Your task to perform on an android device: move an email to a new category in the gmail app Image 0: 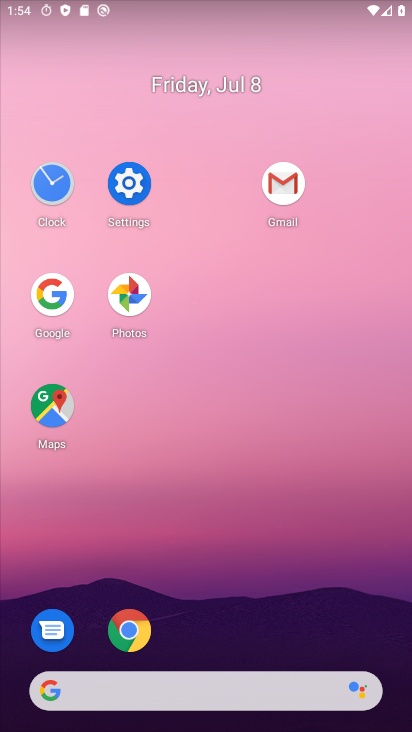
Step 0: click (293, 175)
Your task to perform on an android device: move an email to a new category in the gmail app Image 1: 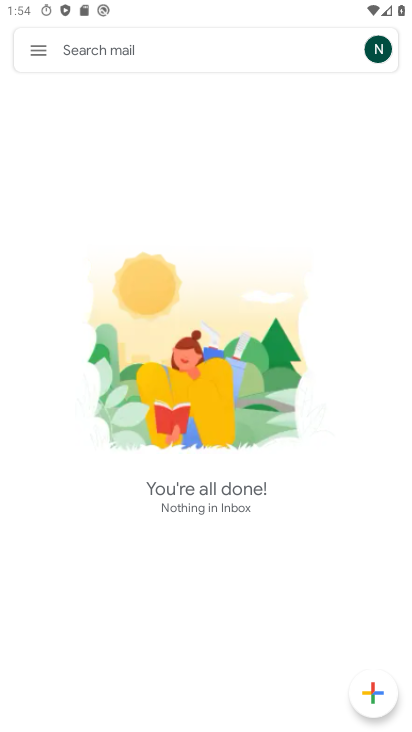
Step 1: task complete